Your task to perform on an android device: Play the last video I watched on Youtube Image 0: 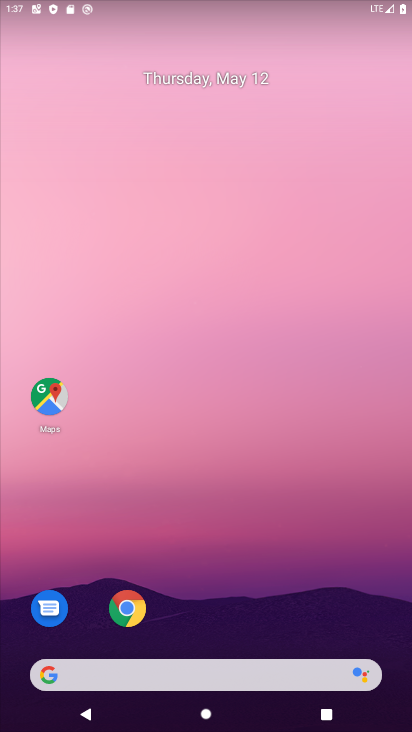
Step 0: drag from (330, 611) to (393, 18)
Your task to perform on an android device: Play the last video I watched on Youtube Image 1: 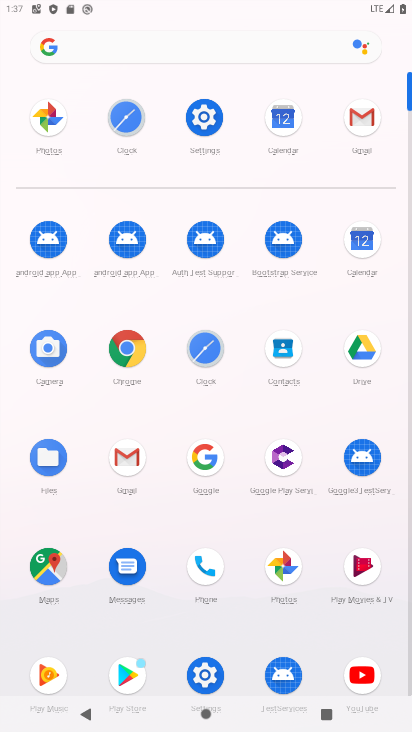
Step 1: click (371, 678)
Your task to perform on an android device: Play the last video I watched on Youtube Image 2: 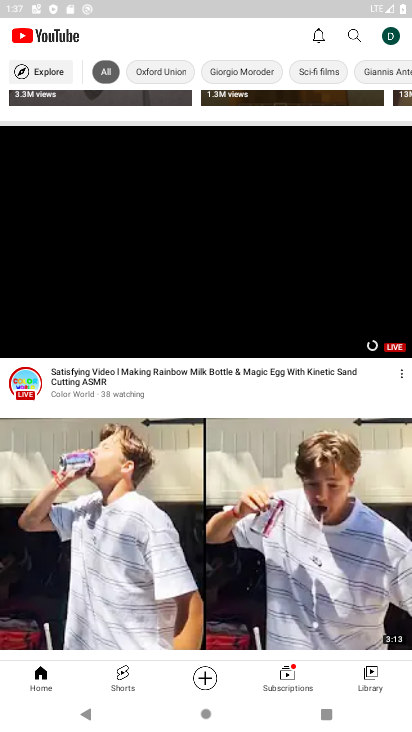
Step 2: click (370, 685)
Your task to perform on an android device: Play the last video I watched on Youtube Image 3: 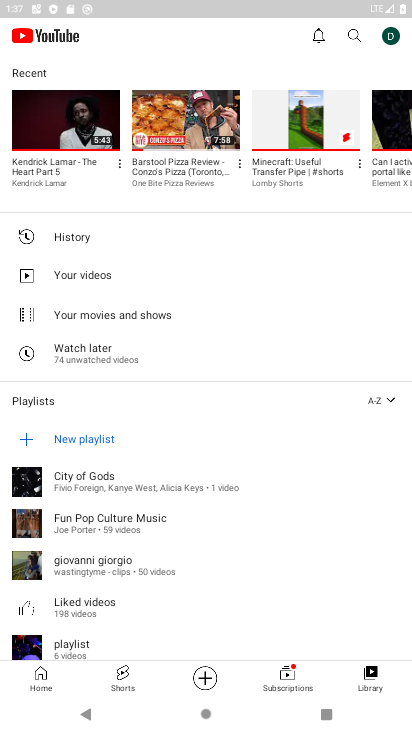
Step 3: click (79, 235)
Your task to perform on an android device: Play the last video I watched on Youtube Image 4: 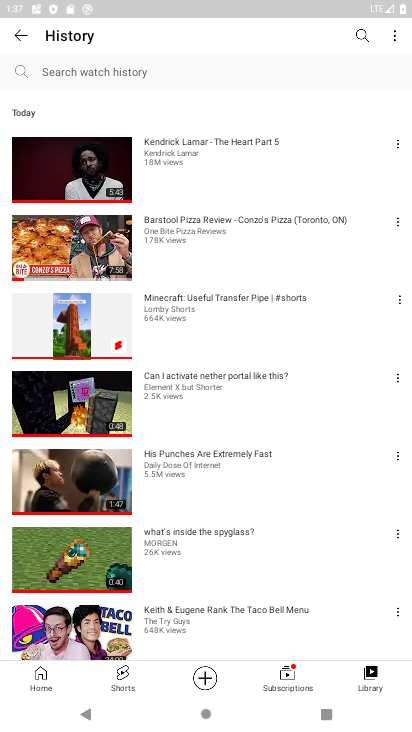
Step 4: click (81, 160)
Your task to perform on an android device: Play the last video I watched on Youtube Image 5: 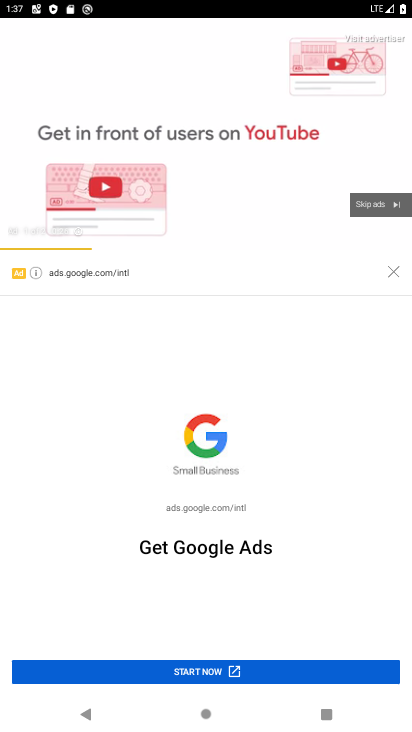
Step 5: click (380, 215)
Your task to perform on an android device: Play the last video I watched on Youtube Image 6: 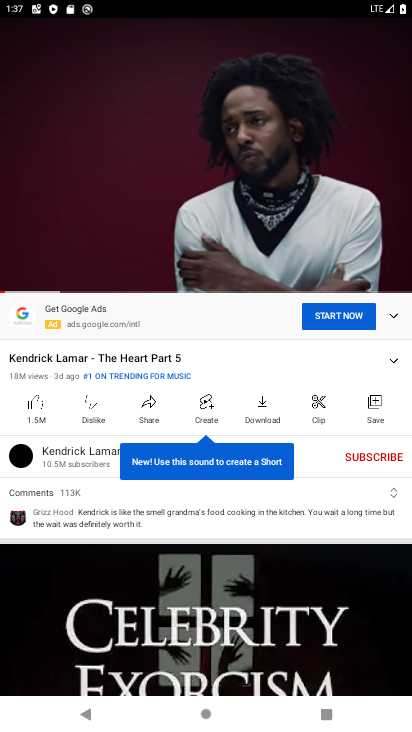
Step 6: click (223, 168)
Your task to perform on an android device: Play the last video I watched on Youtube Image 7: 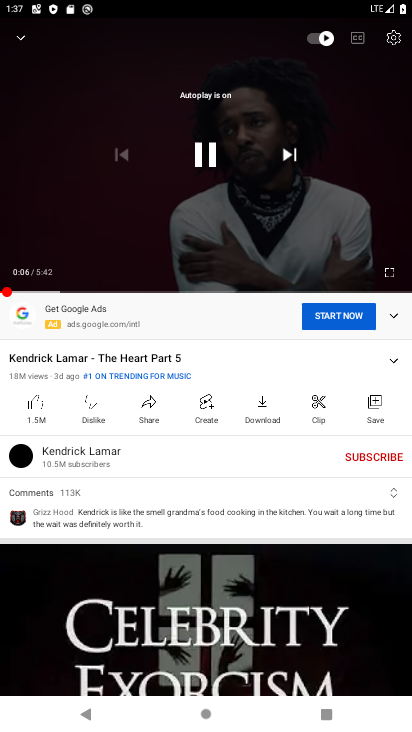
Step 7: click (202, 162)
Your task to perform on an android device: Play the last video I watched on Youtube Image 8: 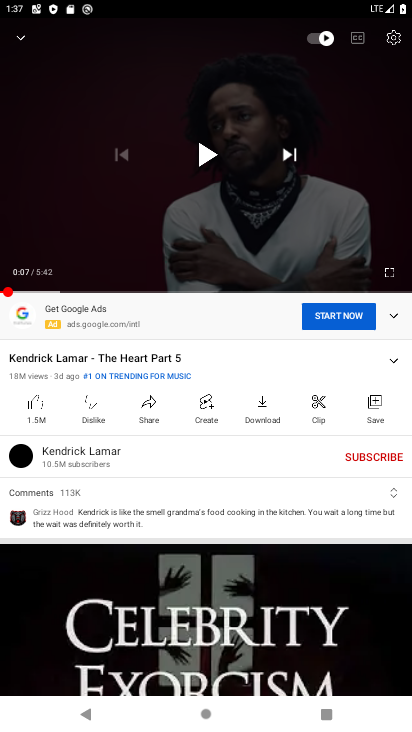
Step 8: task complete